Your task to perform on an android device: Add "alienware area 51" to the cart on ebay, then select checkout. Image 0: 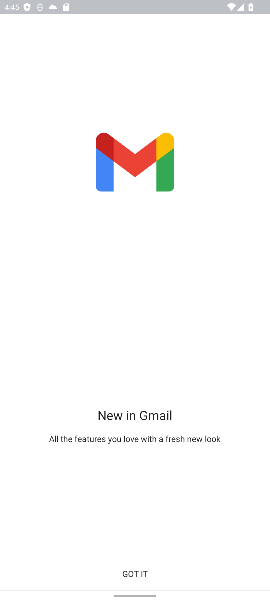
Step 0: press home button
Your task to perform on an android device: Add "alienware area 51" to the cart on ebay, then select checkout. Image 1: 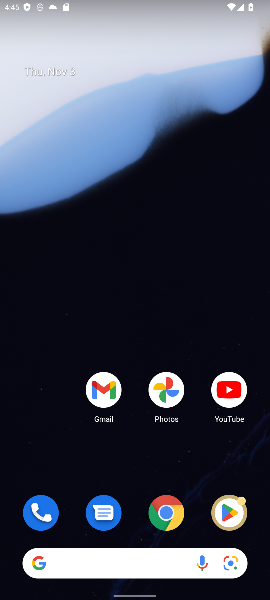
Step 1: click (162, 523)
Your task to perform on an android device: Add "alienware area 51" to the cart on ebay, then select checkout. Image 2: 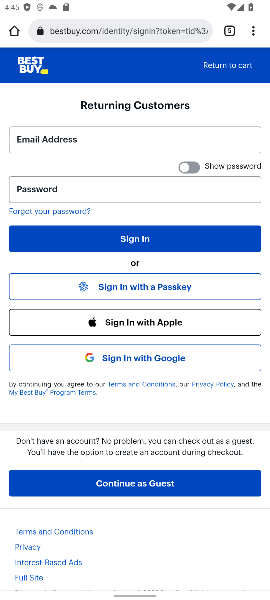
Step 2: click (229, 29)
Your task to perform on an android device: Add "alienware area 51" to the cart on ebay, then select checkout. Image 3: 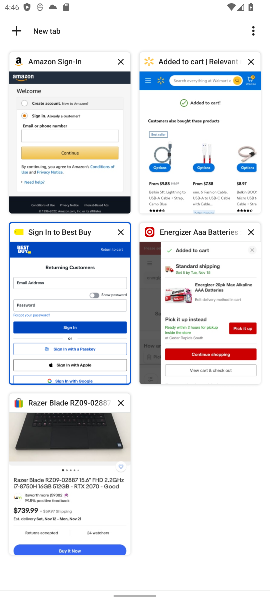
Step 3: click (56, 431)
Your task to perform on an android device: Add "alienware area 51" to the cart on ebay, then select checkout. Image 4: 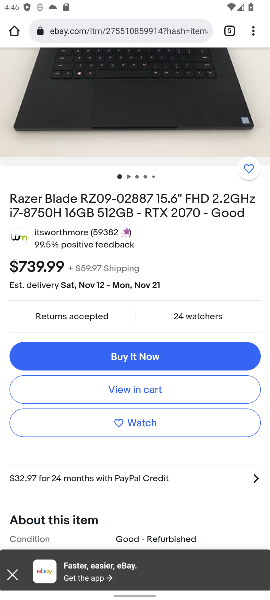
Step 4: drag from (206, 79) to (128, 356)
Your task to perform on an android device: Add "alienware area 51" to the cart on ebay, then select checkout. Image 5: 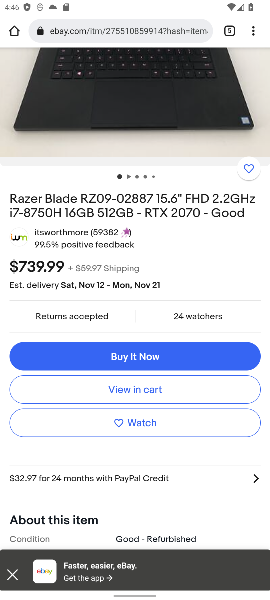
Step 5: drag from (213, 225) to (178, 553)
Your task to perform on an android device: Add "alienware area 51" to the cart on ebay, then select checkout. Image 6: 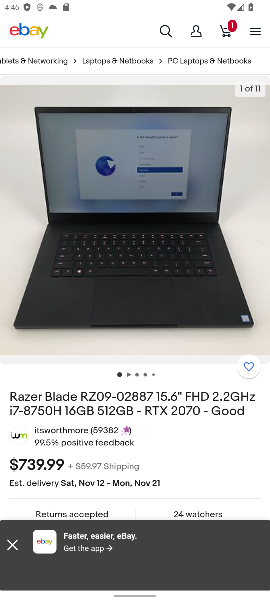
Step 6: click (164, 33)
Your task to perform on an android device: Add "alienware area 51" to the cart on ebay, then select checkout. Image 7: 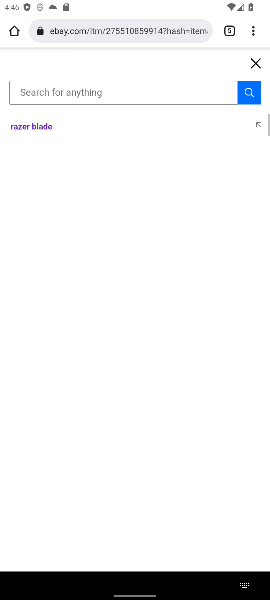
Step 7: type "alienware area 51"
Your task to perform on an android device: Add "alienware area 51" to the cart on ebay, then select checkout. Image 8: 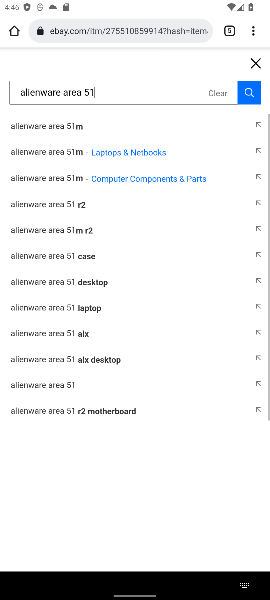
Step 8: click (69, 155)
Your task to perform on an android device: Add "alienware area 51" to the cart on ebay, then select checkout. Image 9: 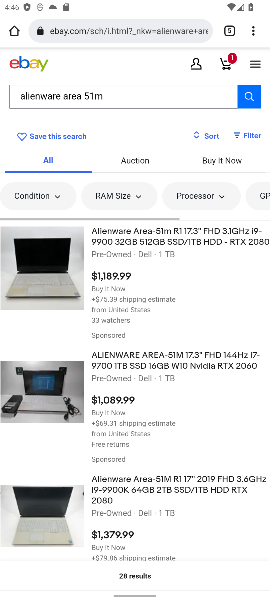
Step 9: click (119, 244)
Your task to perform on an android device: Add "alienware area 51" to the cart on ebay, then select checkout. Image 10: 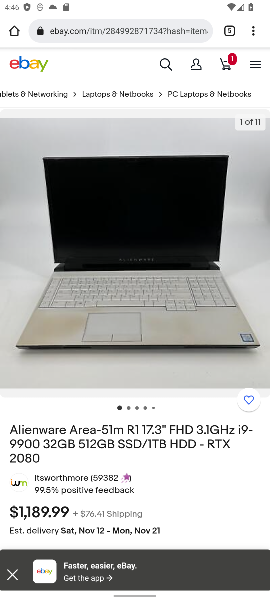
Step 10: drag from (183, 469) to (212, 185)
Your task to perform on an android device: Add "alienware area 51" to the cart on ebay, then select checkout. Image 11: 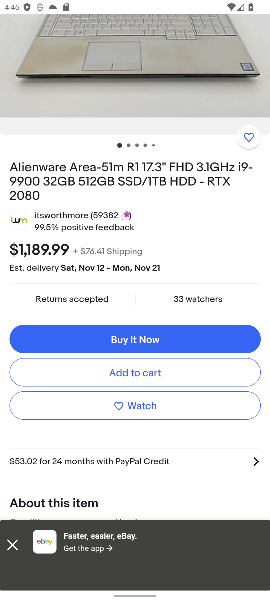
Step 11: click (122, 373)
Your task to perform on an android device: Add "alienware area 51" to the cart on ebay, then select checkout. Image 12: 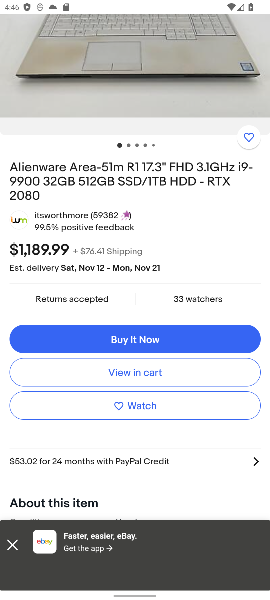
Step 12: task complete